Your task to perform on an android device: Search for vegetarian restaurants on Maps Image 0: 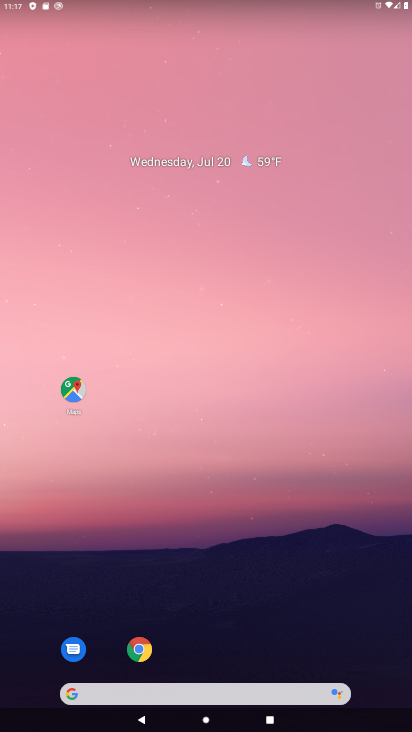
Step 0: click (76, 386)
Your task to perform on an android device: Search for vegetarian restaurants on Maps Image 1: 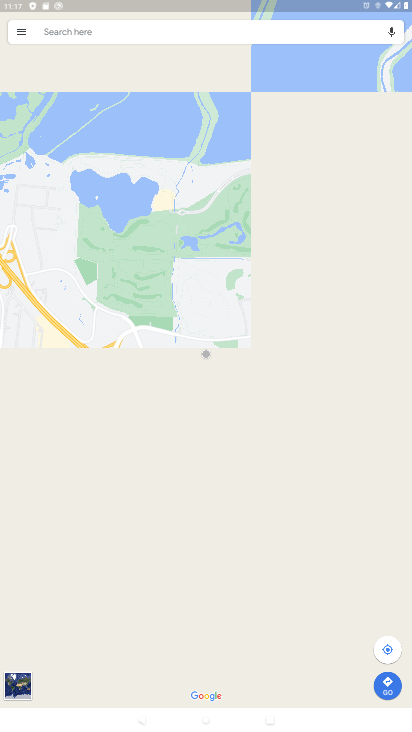
Step 1: click (166, 33)
Your task to perform on an android device: Search for vegetarian restaurants on Maps Image 2: 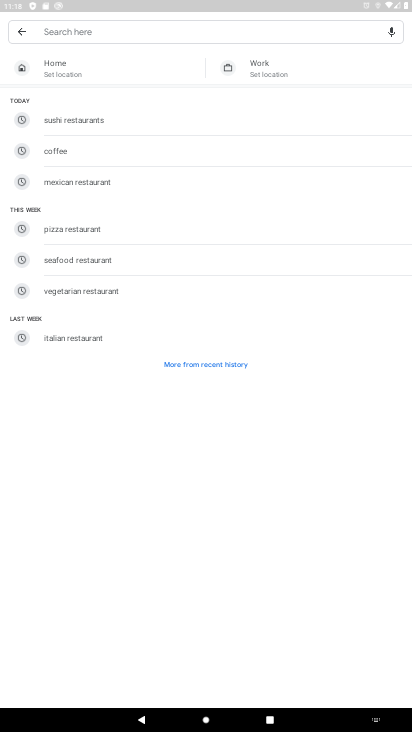
Step 2: click (76, 293)
Your task to perform on an android device: Search for vegetarian restaurants on Maps Image 3: 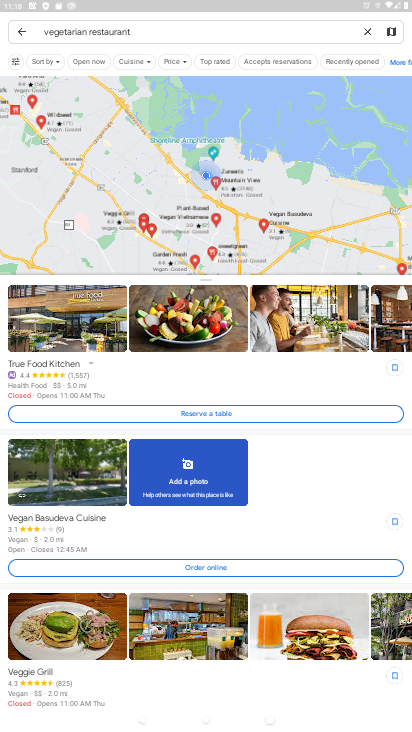
Step 3: task complete